Your task to perform on an android device: Search for seafood restaurants on Google Maps Image 0: 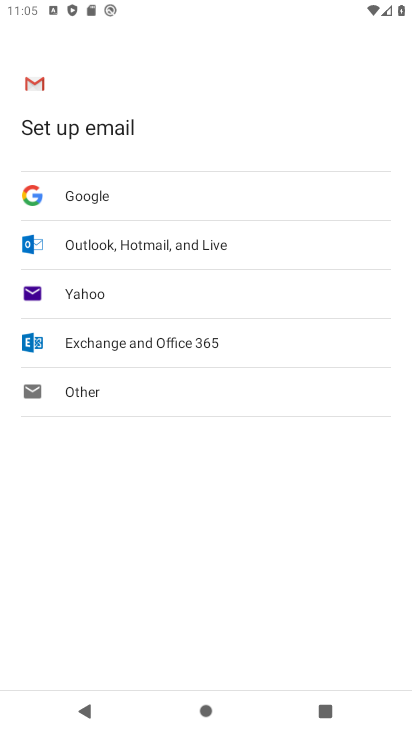
Step 0: press home button
Your task to perform on an android device: Search for seafood restaurants on Google Maps Image 1: 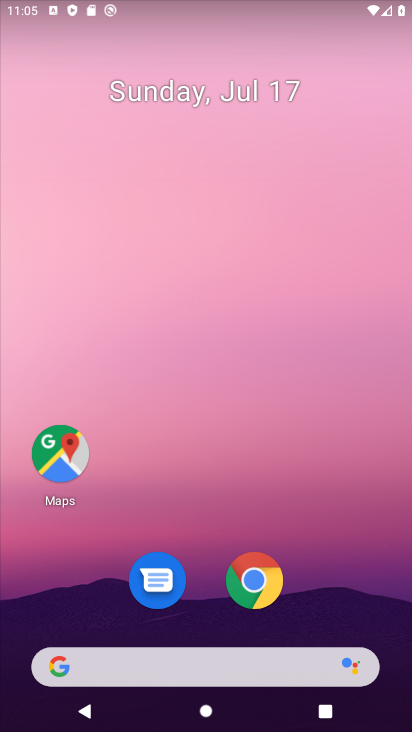
Step 1: drag from (305, 632) to (365, 198)
Your task to perform on an android device: Search for seafood restaurants on Google Maps Image 2: 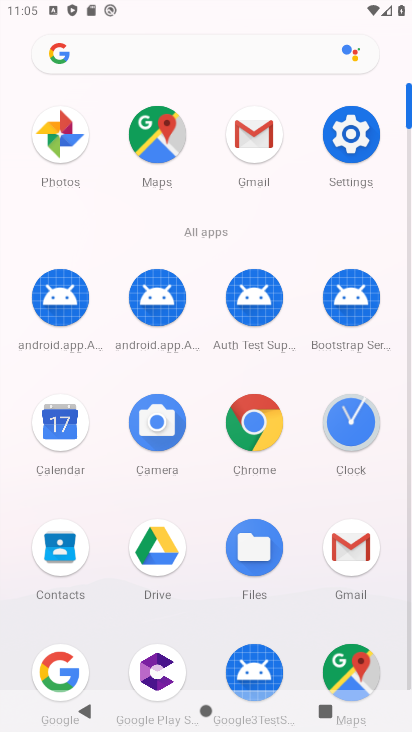
Step 2: drag from (296, 541) to (370, 274)
Your task to perform on an android device: Search for seafood restaurants on Google Maps Image 3: 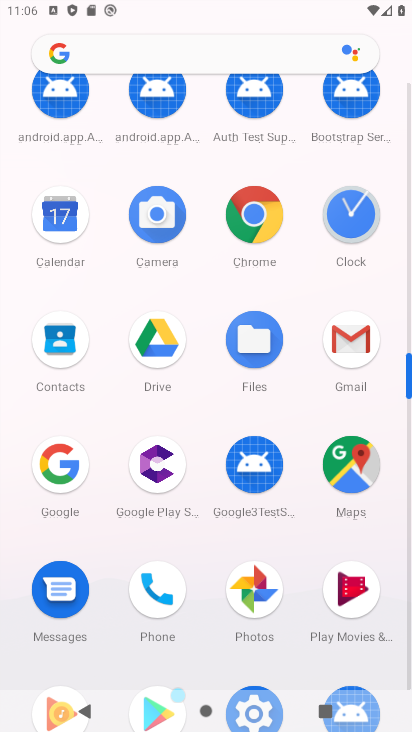
Step 3: click (344, 494)
Your task to perform on an android device: Search for seafood restaurants on Google Maps Image 4: 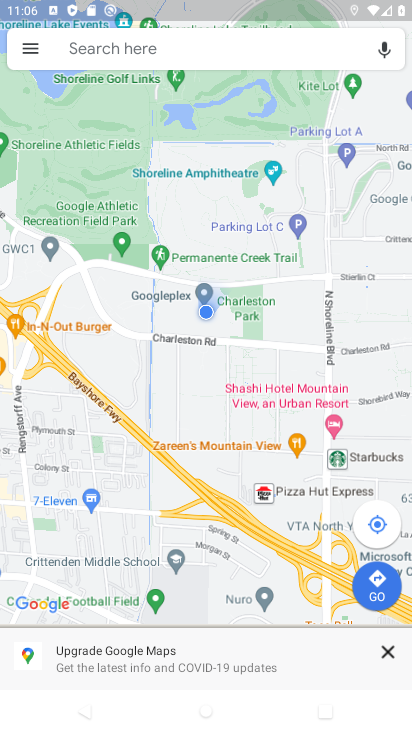
Step 4: click (250, 54)
Your task to perform on an android device: Search for seafood restaurants on Google Maps Image 5: 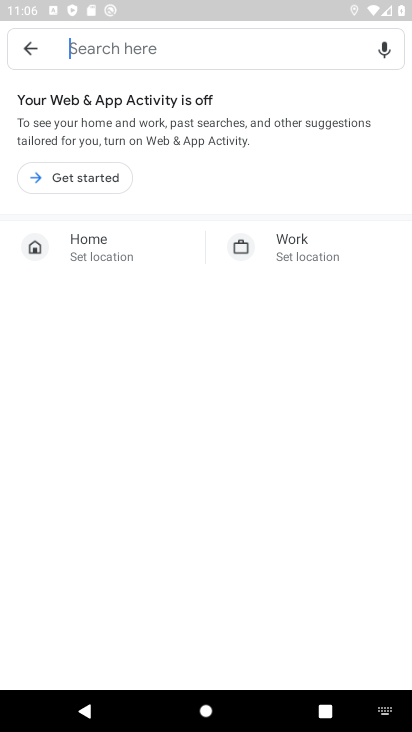
Step 5: click (34, 53)
Your task to perform on an android device: Search for seafood restaurants on Google Maps Image 6: 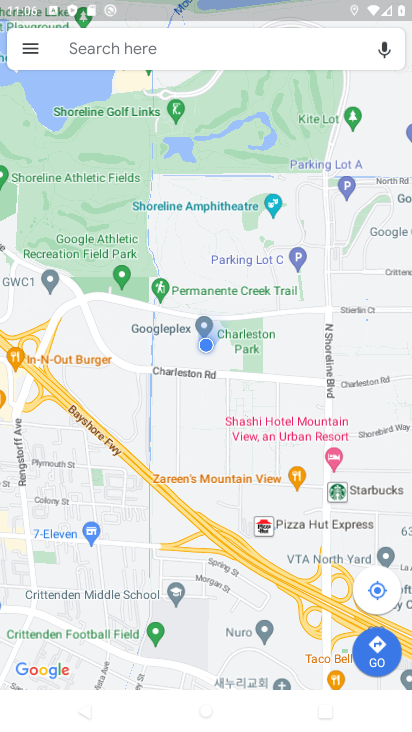
Step 6: click (166, 43)
Your task to perform on an android device: Search for seafood restaurants on Google Maps Image 7: 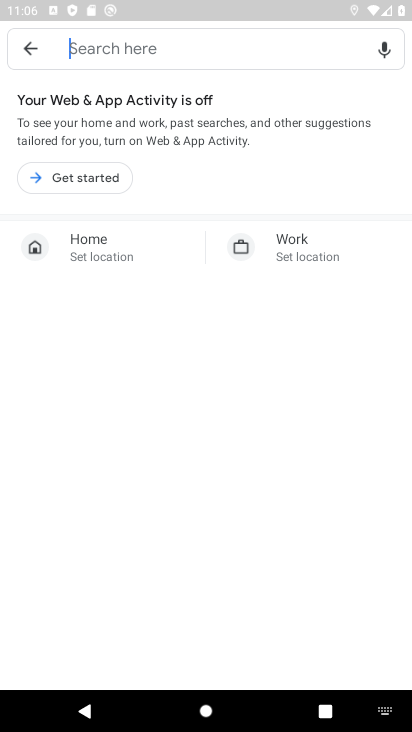
Step 7: type "seafood"
Your task to perform on an android device: Search for seafood restaurants on Google Maps Image 8: 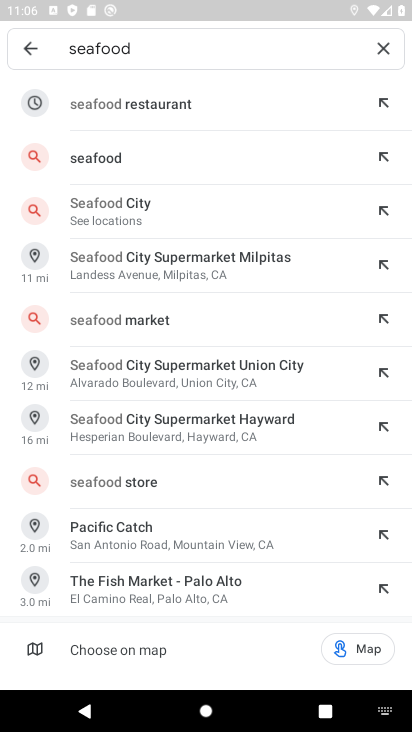
Step 8: click (229, 101)
Your task to perform on an android device: Search for seafood restaurants on Google Maps Image 9: 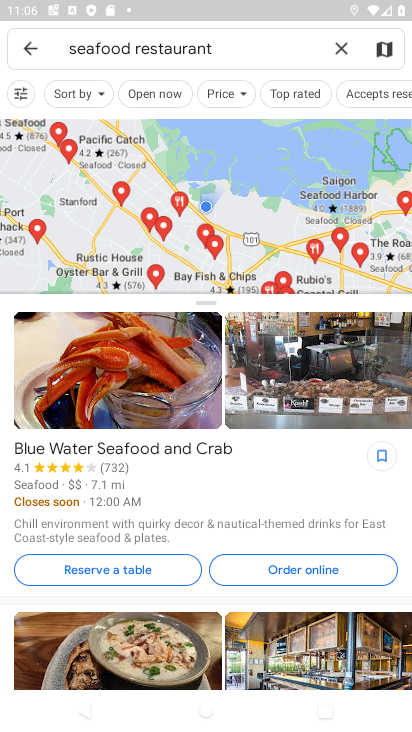
Step 9: task complete